Your task to perform on an android device: Go to eBay Image 0: 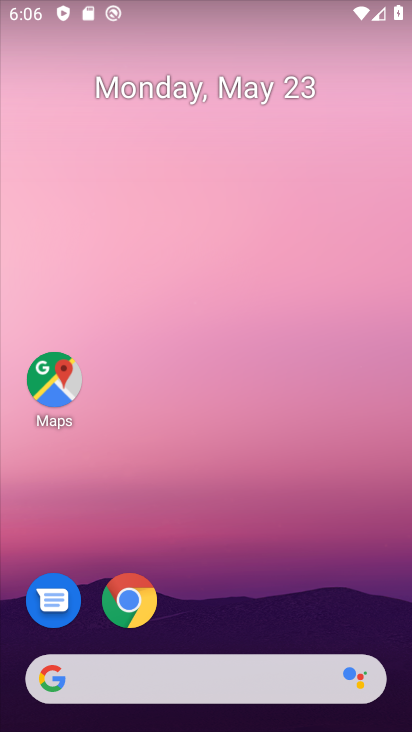
Step 0: drag from (225, 605) to (172, 217)
Your task to perform on an android device: Go to eBay Image 1: 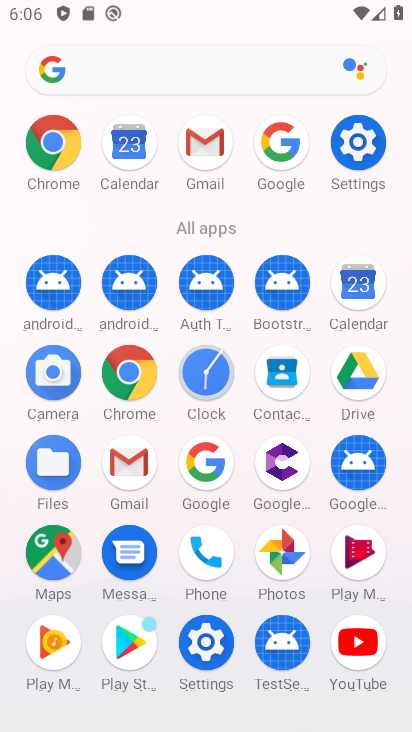
Step 1: click (144, 375)
Your task to perform on an android device: Go to eBay Image 2: 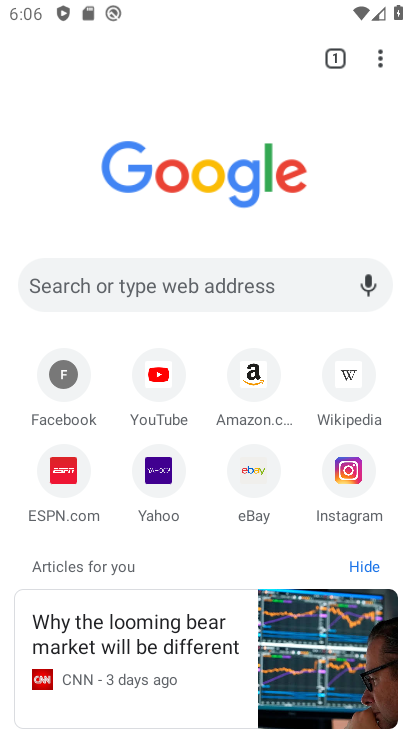
Step 2: click (188, 301)
Your task to perform on an android device: Go to eBay Image 3: 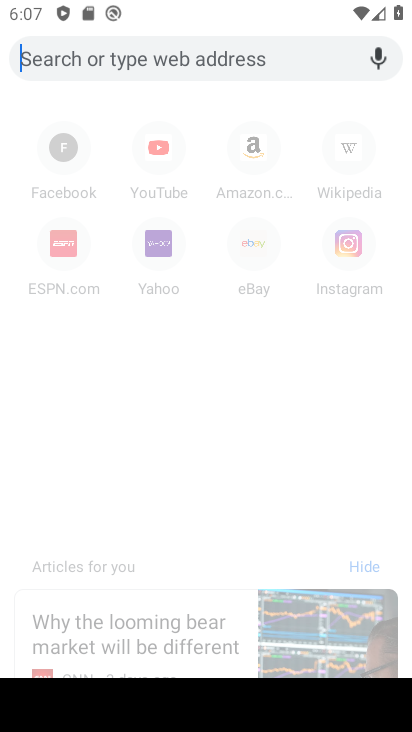
Step 3: type "ebay"
Your task to perform on an android device: Go to eBay Image 4: 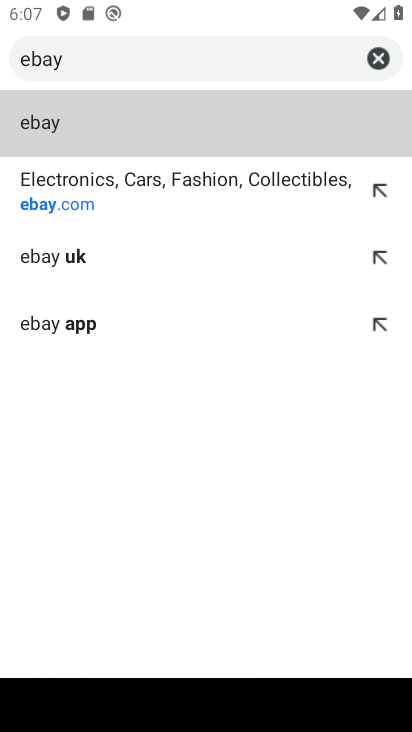
Step 4: type ""
Your task to perform on an android device: Go to eBay Image 5: 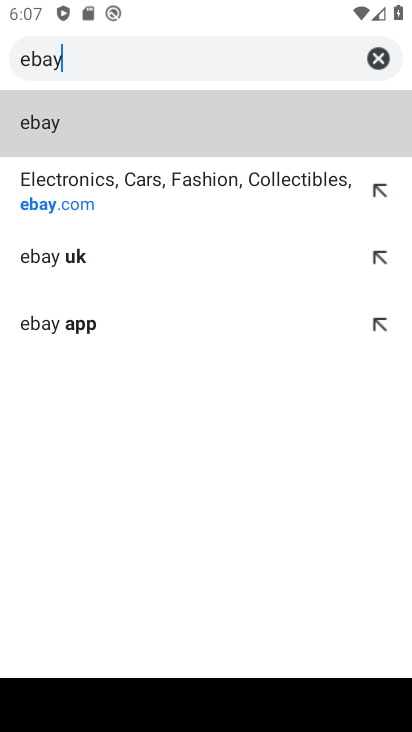
Step 5: click (187, 193)
Your task to perform on an android device: Go to eBay Image 6: 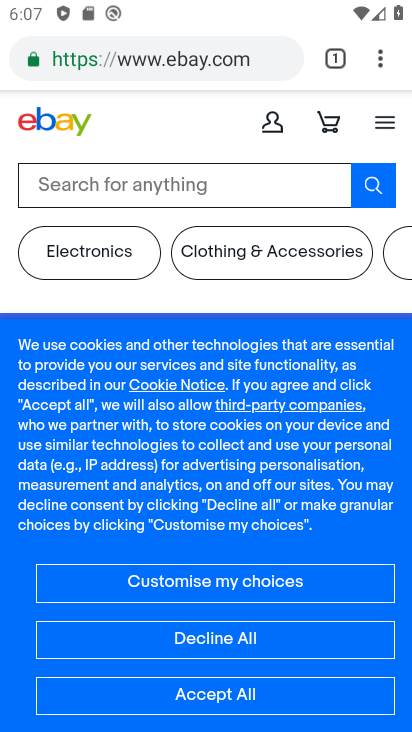
Step 6: task complete